Your task to perform on an android device: Do I have any events tomorrow? Image 0: 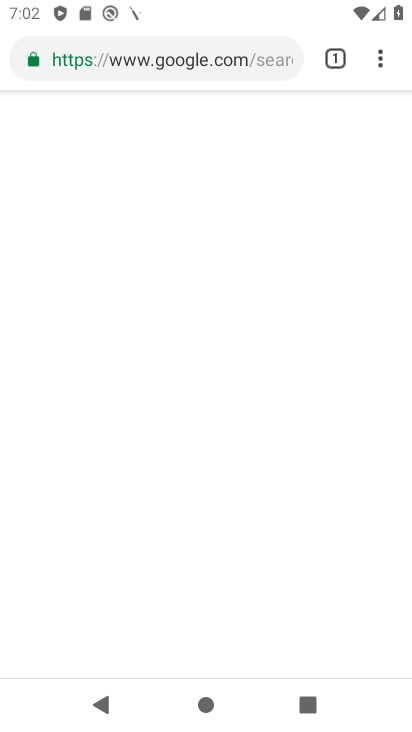
Step 0: press home button
Your task to perform on an android device: Do I have any events tomorrow? Image 1: 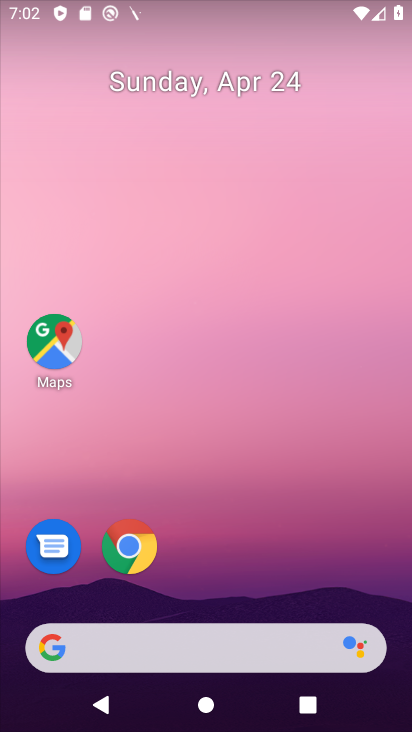
Step 1: drag from (222, 581) to (305, 5)
Your task to perform on an android device: Do I have any events tomorrow? Image 2: 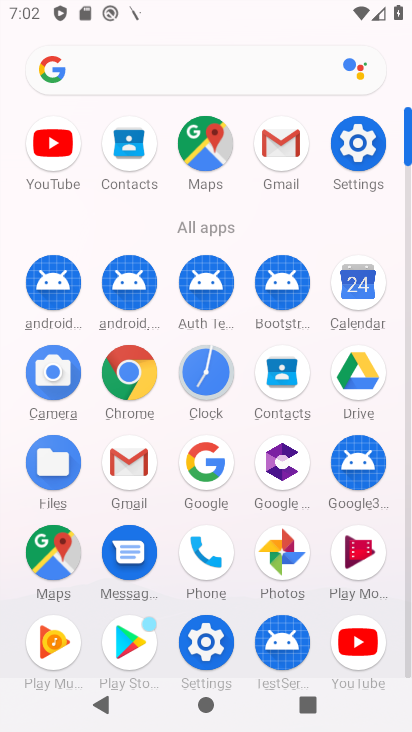
Step 2: click (349, 292)
Your task to perform on an android device: Do I have any events tomorrow? Image 3: 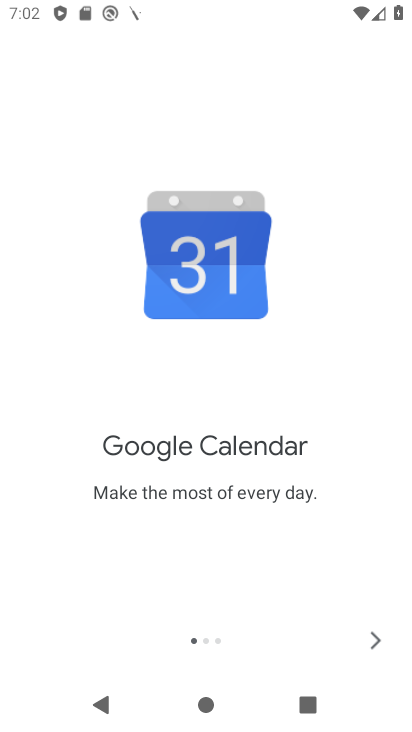
Step 3: click (377, 637)
Your task to perform on an android device: Do I have any events tomorrow? Image 4: 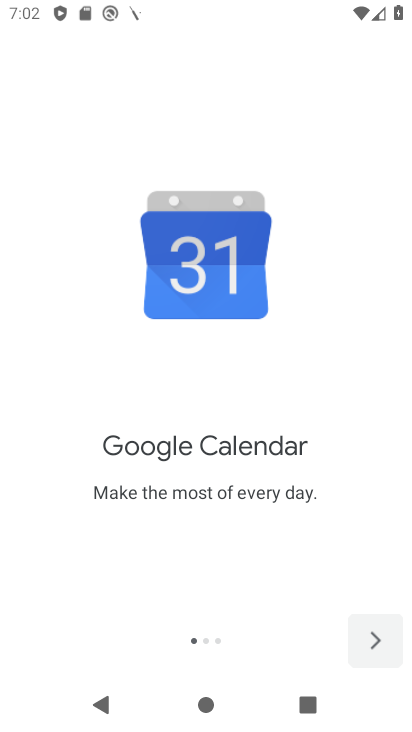
Step 4: click (377, 637)
Your task to perform on an android device: Do I have any events tomorrow? Image 5: 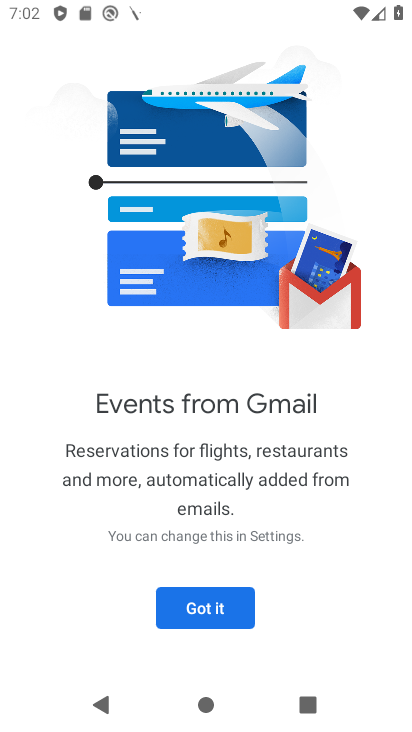
Step 5: click (214, 596)
Your task to perform on an android device: Do I have any events tomorrow? Image 6: 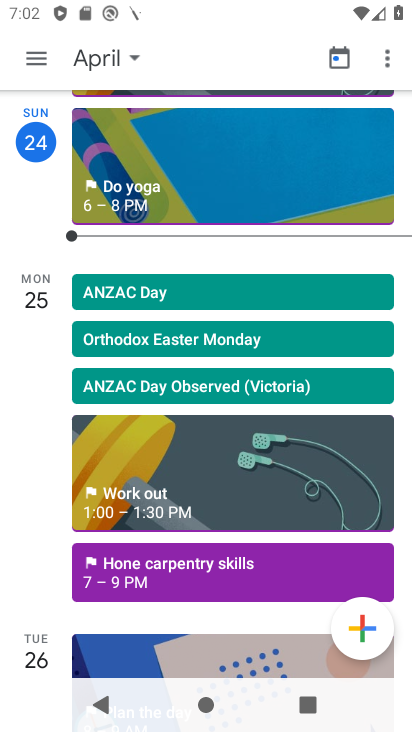
Step 6: click (132, 57)
Your task to perform on an android device: Do I have any events tomorrow? Image 7: 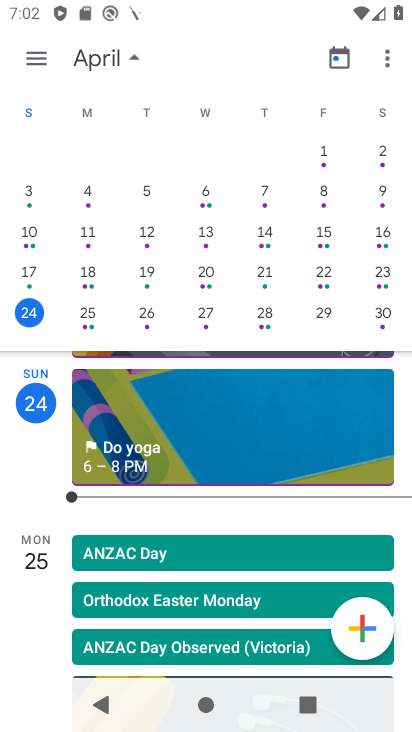
Step 7: click (85, 311)
Your task to perform on an android device: Do I have any events tomorrow? Image 8: 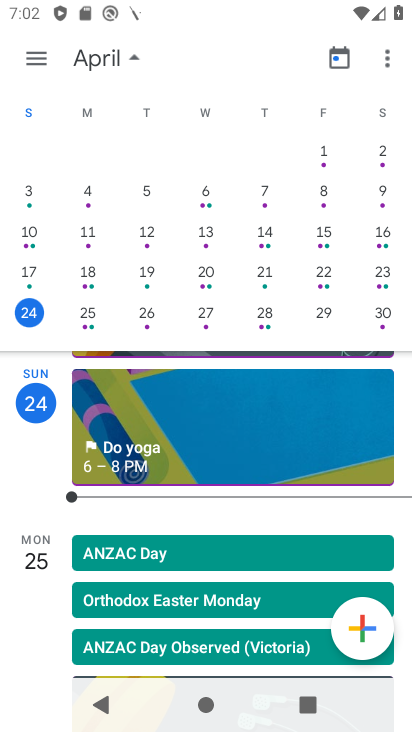
Step 8: click (83, 312)
Your task to perform on an android device: Do I have any events tomorrow? Image 9: 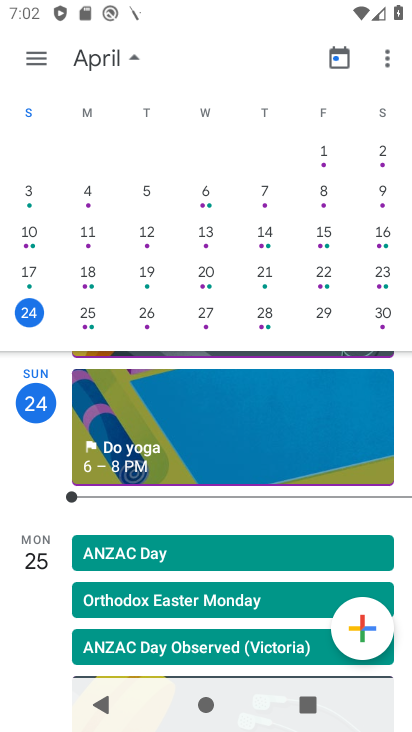
Step 9: click (38, 49)
Your task to perform on an android device: Do I have any events tomorrow? Image 10: 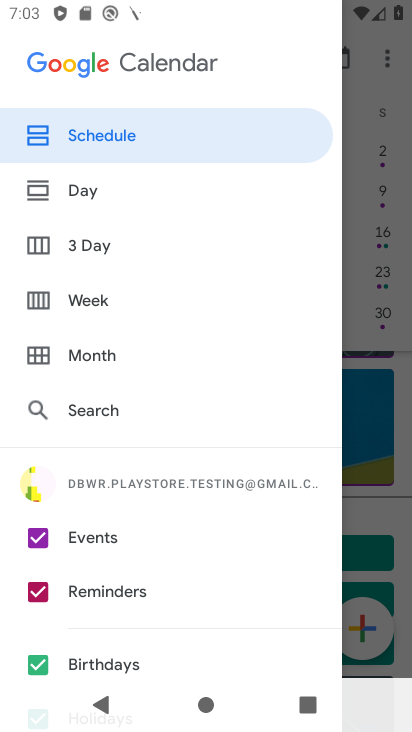
Step 10: click (88, 186)
Your task to perform on an android device: Do I have any events tomorrow? Image 11: 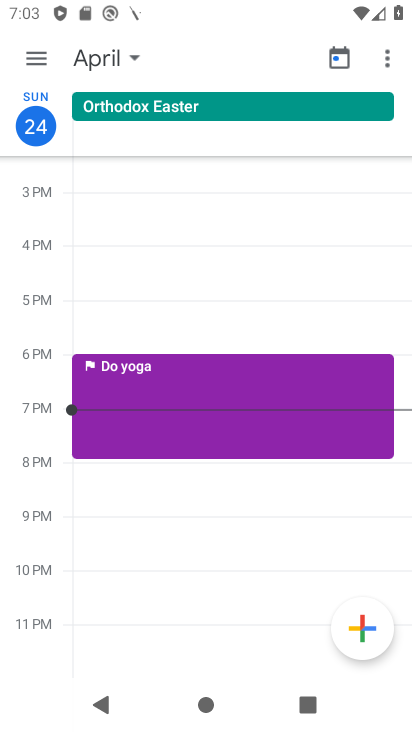
Step 11: click (128, 59)
Your task to perform on an android device: Do I have any events tomorrow? Image 12: 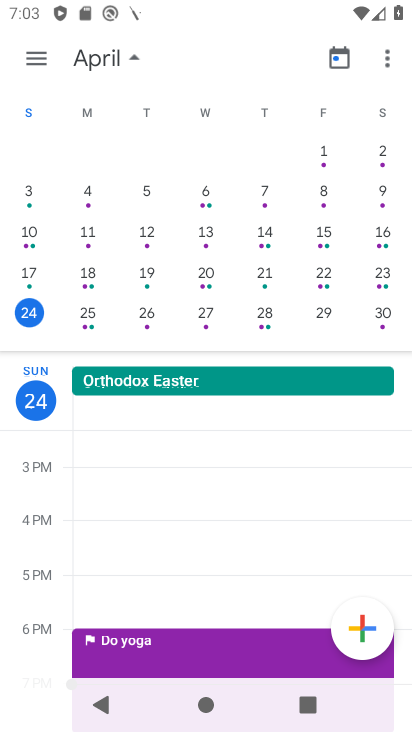
Step 12: click (83, 313)
Your task to perform on an android device: Do I have any events tomorrow? Image 13: 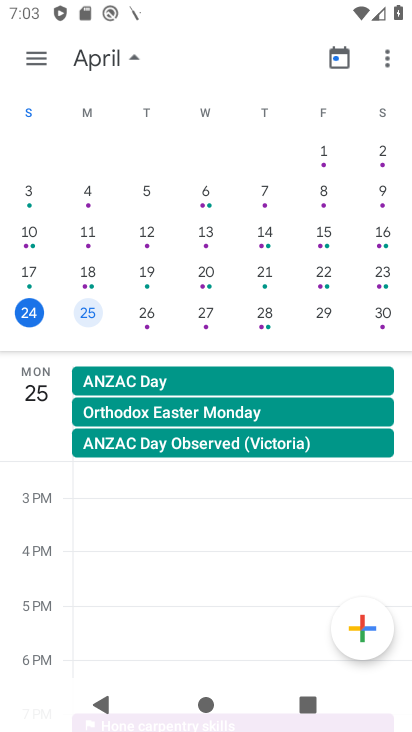
Step 13: task complete